Your task to perform on an android device: What's the weather going to be tomorrow? Image 0: 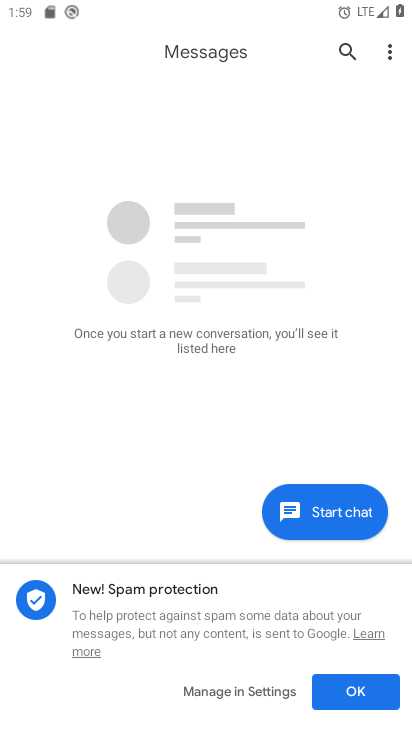
Step 0: press home button
Your task to perform on an android device: What's the weather going to be tomorrow? Image 1: 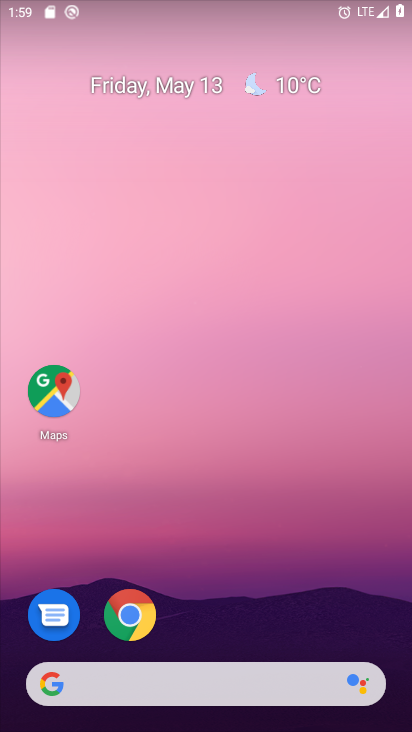
Step 1: click (296, 85)
Your task to perform on an android device: What's the weather going to be tomorrow? Image 2: 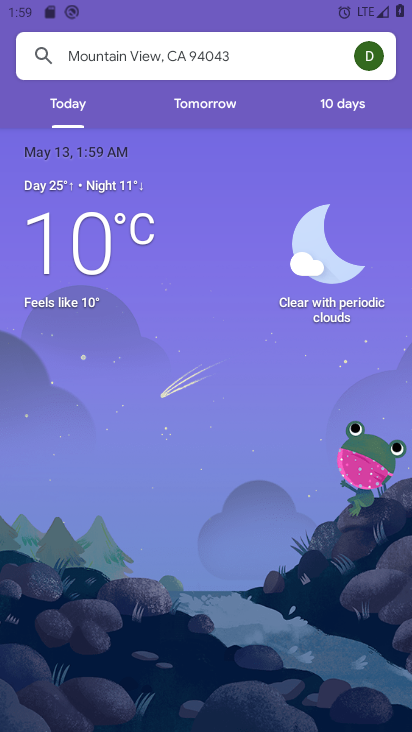
Step 2: click (214, 106)
Your task to perform on an android device: What's the weather going to be tomorrow? Image 3: 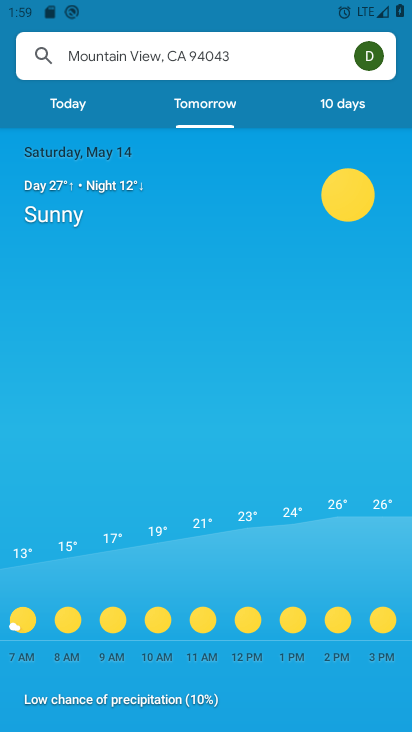
Step 3: task complete